Your task to perform on an android device: Go to display settings Image 0: 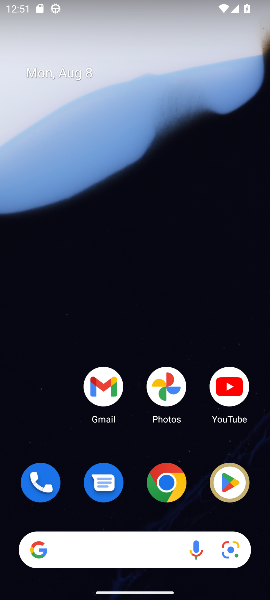
Step 0: drag from (153, 538) to (149, 182)
Your task to perform on an android device: Go to display settings Image 1: 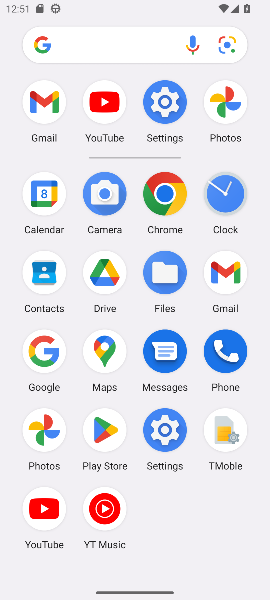
Step 1: click (159, 109)
Your task to perform on an android device: Go to display settings Image 2: 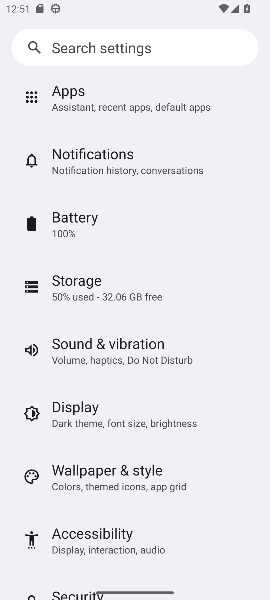
Step 2: click (105, 418)
Your task to perform on an android device: Go to display settings Image 3: 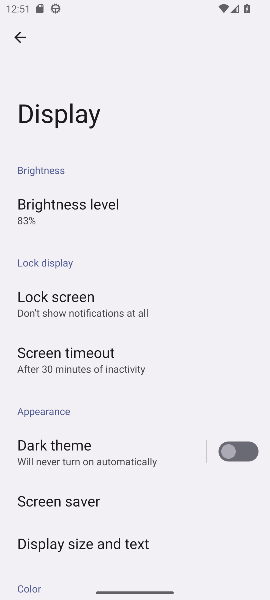
Step 3: task complete